Your task to perform on an android device: find snoozed emails in the gmail app Image 0: 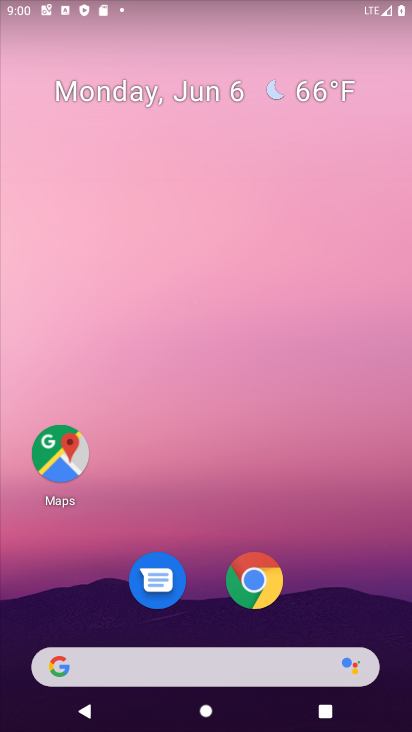
Step 0: drag from (327, 587) to (339, 69)
Your task to perform on an android device: find snoozed emails in the gmail app Image 1: 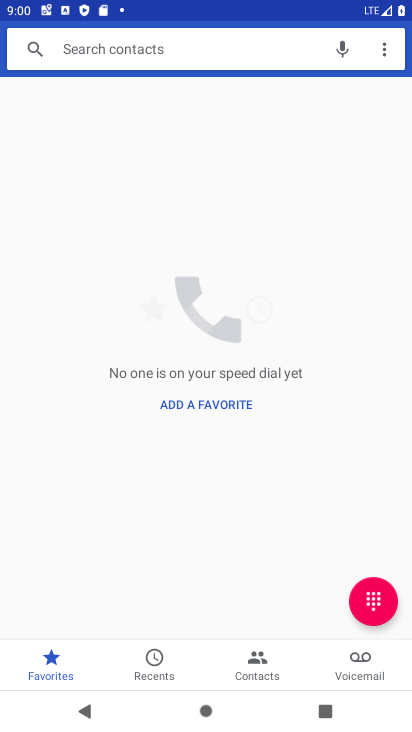
Step 1: press home button
Your task to perform on an android device: find snoozed emails in the gmail app Image 2: 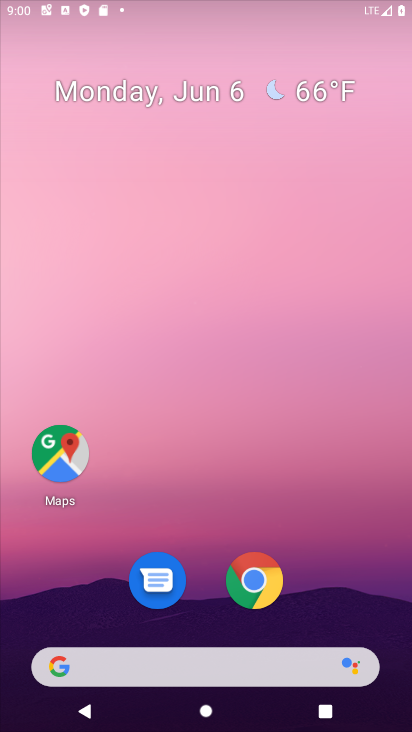
Step 2: drag from (354, 539) to (217, 29)
Your task to perform on an android device: find snoozed emails in the gmail app Image 3: 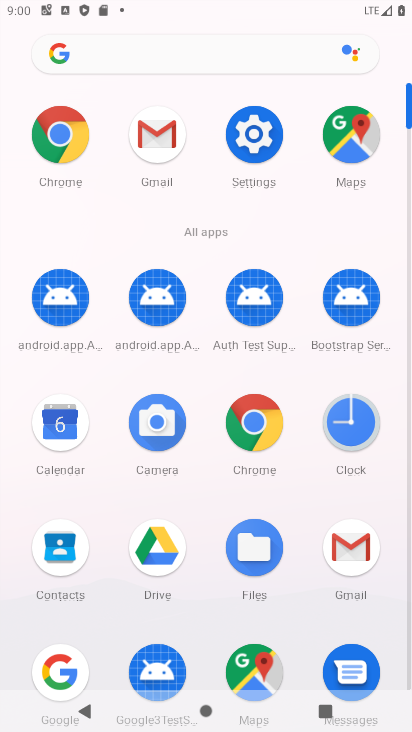
Step 3: click (173, 125)
Your task to perform on an android device: find snoozed emails in the gmail app Image 4: 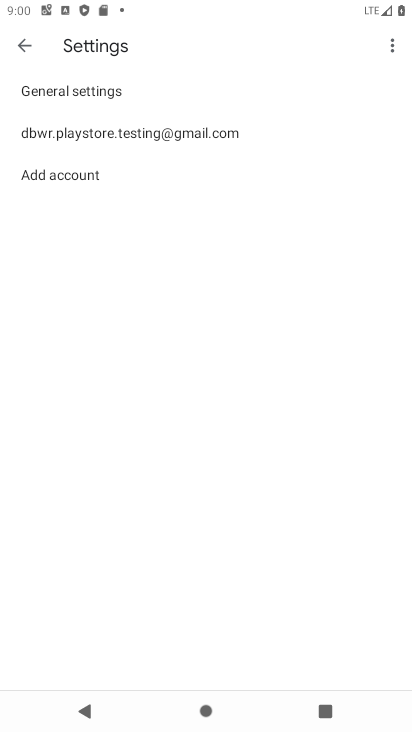
Step 4: click (23, 62)
Your task to perform on an android device: find snoozed emails in the gmail app Image 5: 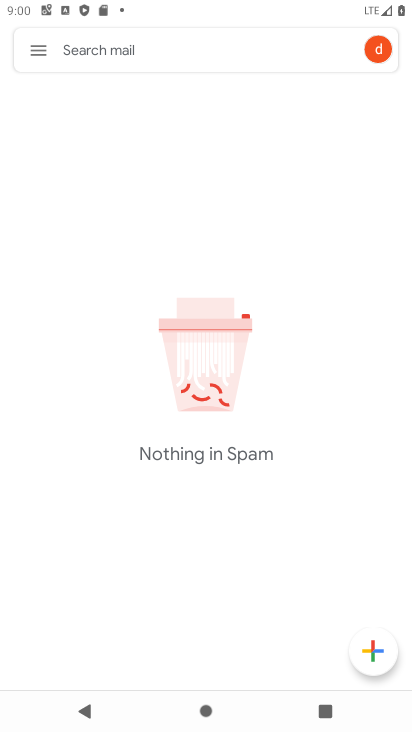
Step 5: click (38, 49)
Your task to perform on an android device: find snoozed emails in the gmail app Image 6: 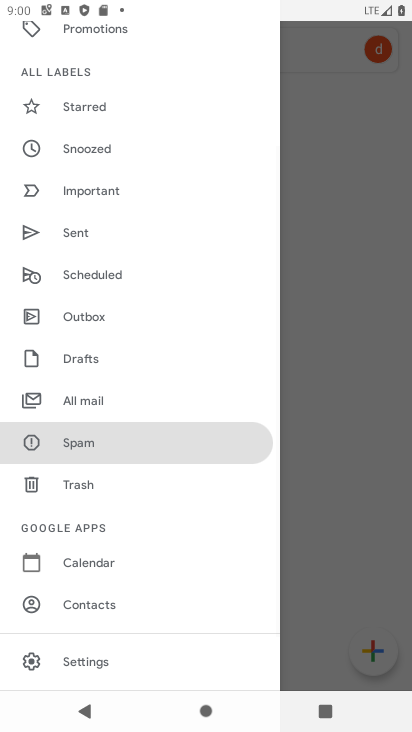
Step 6: click (90, 149)
Your task to perform on an android device: find snoozed emails in the gmail app Image 7: 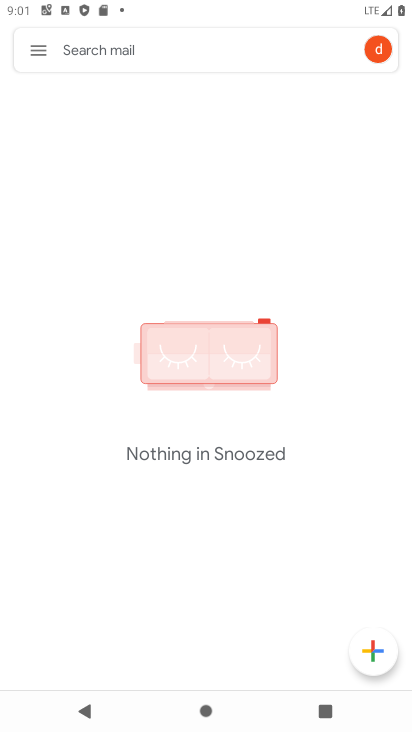
Step 7: click (41, 71)
Your task to perform on an android device: find snoozed emails in the gmail app Image 8: 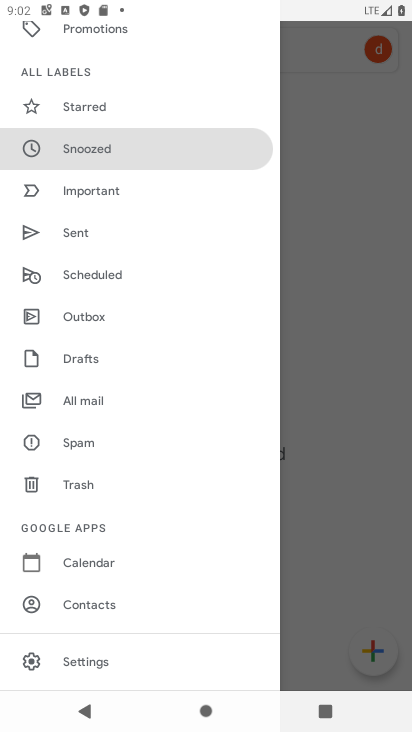
Step 8: click (129, 139)
Your task to perform on an android device: find snoozed emails in the gmail app Image 9: 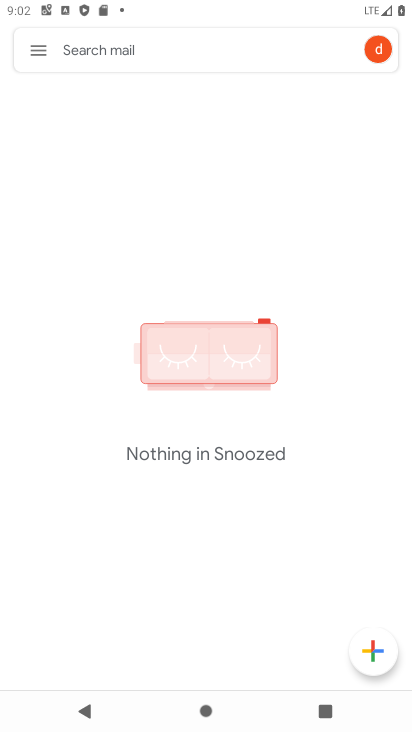
Step 9: task complete